Your task to perform on an android device: manage bookmarks in the chrome app Image 0: 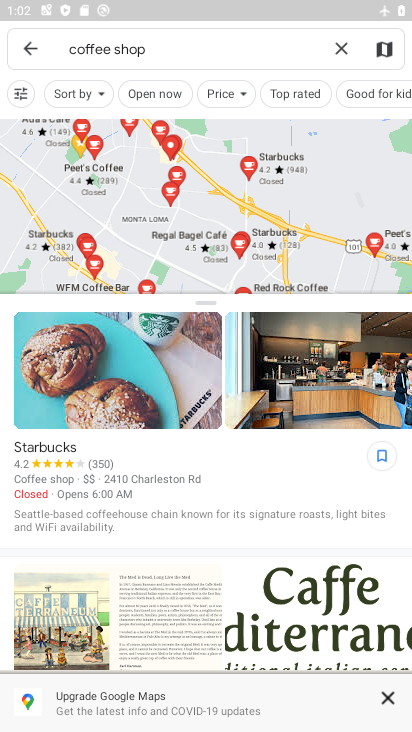
Step 0: press home button
Your task to perform on an android device: manage bookmarks in the chrome app Image 1: 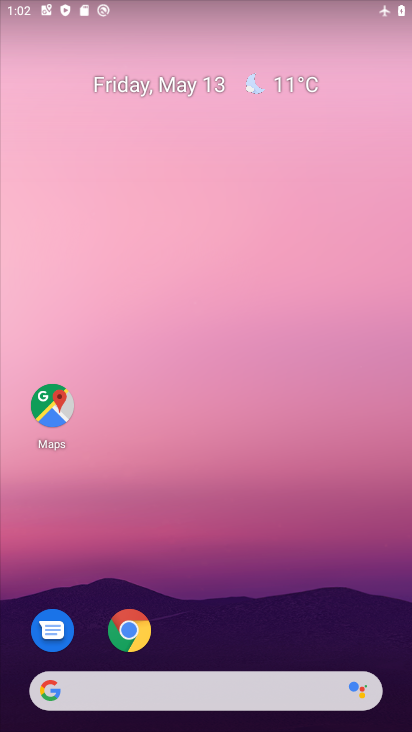
Step 1: click (133, 635)
Your task to perform on an android device: manage bookmarks in the chrome app Image 2: 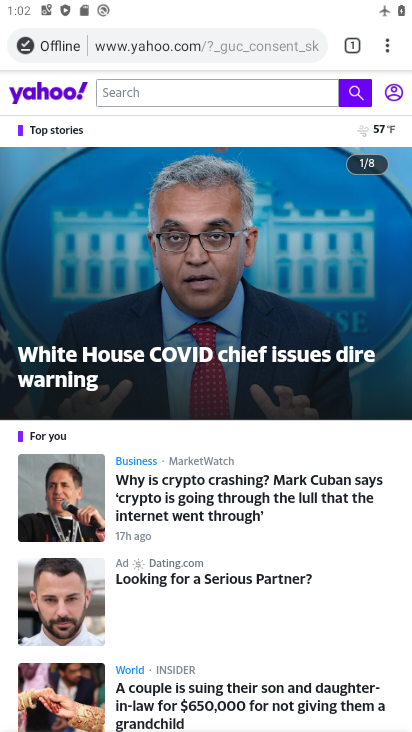
Step 2: task complete